Your task to perform on an android device: open wifi settings Image 0: 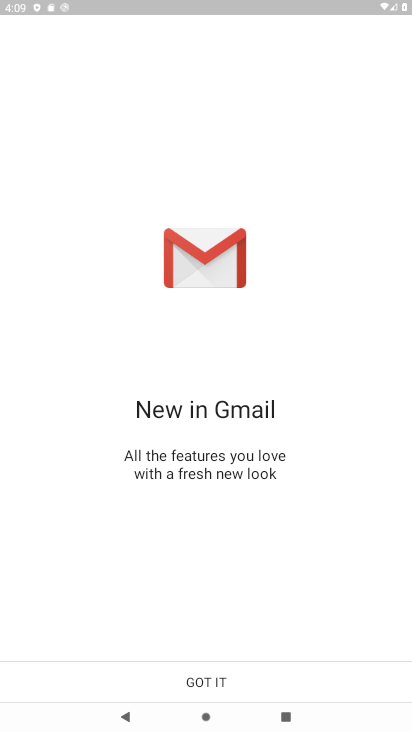
Step 0: press home button
Your task to perform on an android device: open wifi settings Image 1: 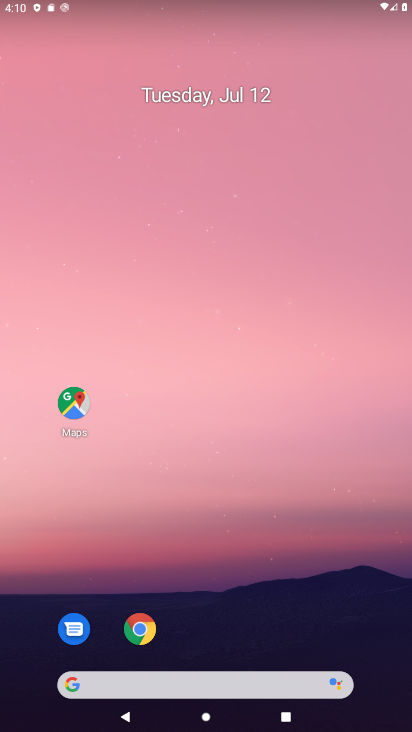
Step 1: drag from (229, 642) to (250, 6)
Your task to perform on an android device: open wifi settings Image 2: 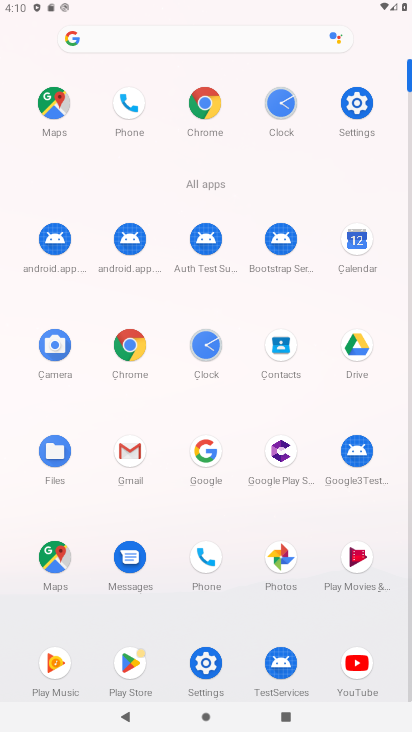
Step 2: click (357, 110)
Your task to perform on an android device: open wifi settings Image 3: 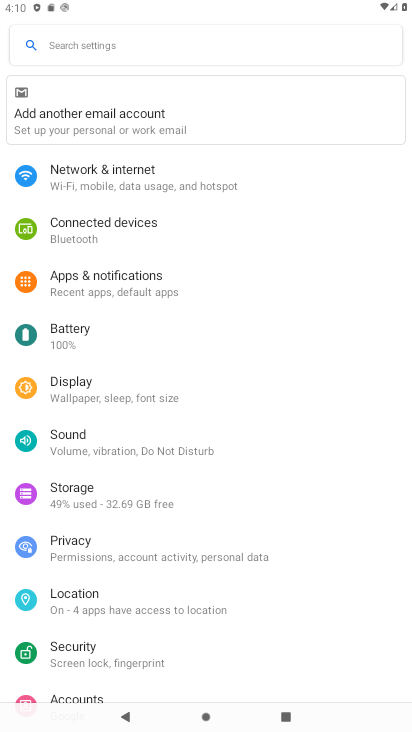
Step 3: click (86, 183)
Your task to perform on an android device: open wifi settings Image 4: 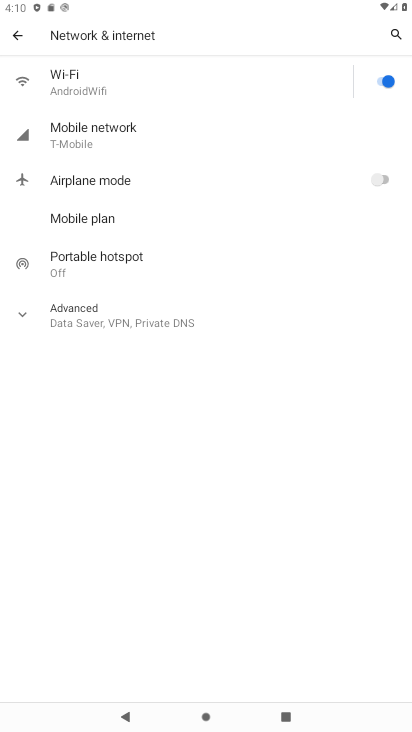
Step 4: click (71, 83)
Your task to perform on an android device: open wifi settings Image 5: 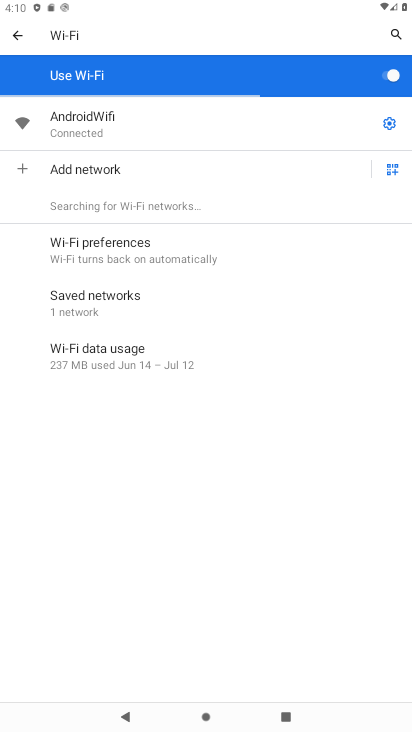
Step 5: task complete